Your task to perform on an android device: turn on data saver in the chrome app Image 0: 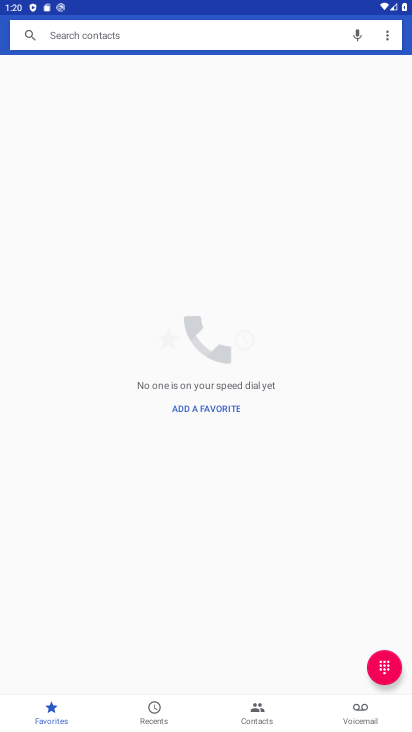
Step 0: press home button
Your task to perform on an android device: turn on data saver in the chrome app Image 1: 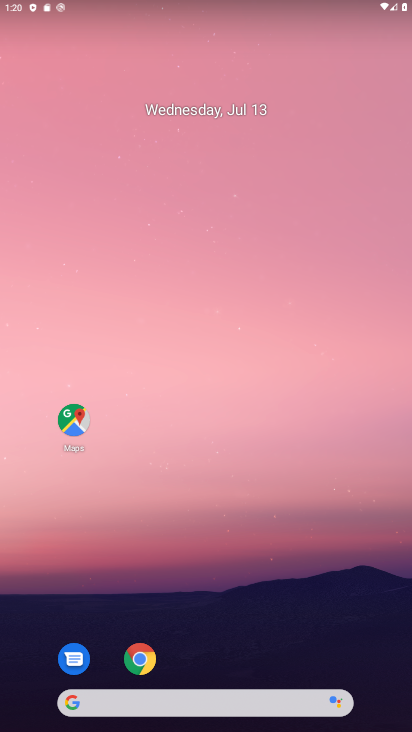
Step 1: click (138, 662)
Your task to perform on an android device: turn on data saver in the chrome app Image 2: 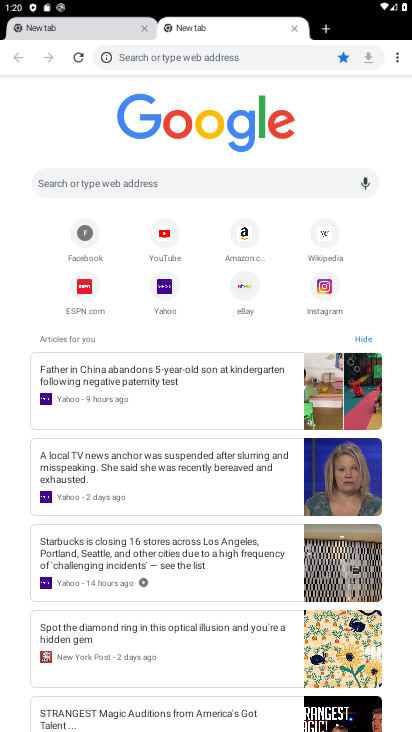
Step 2: click (396, 64)
Your task to perform on an android device: turn on data saver in the chrome app Image 3: 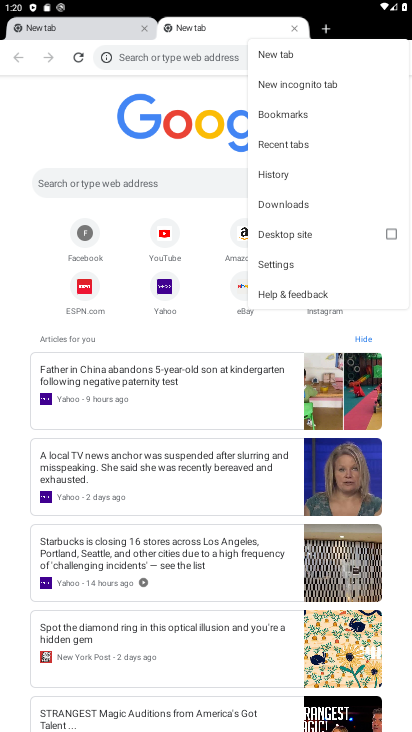
Step 3: click (282, 256)
Your task to perform on an android device: turn on data saver in the chrome app Image 4: 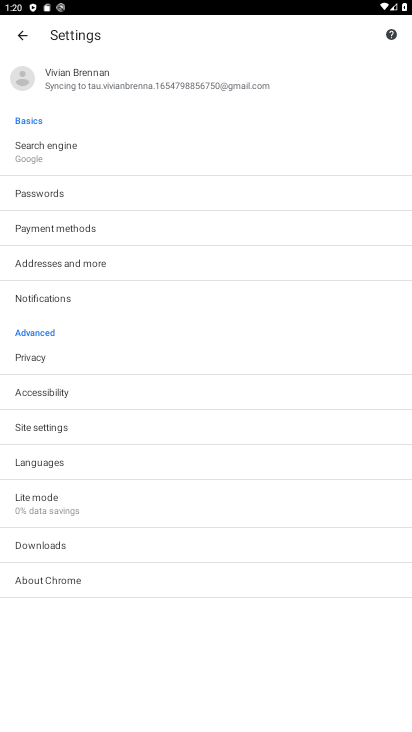
Step 4: click (35, 498)
Your task to perform on an android device: turn on data saver in the chrome app Image 5: 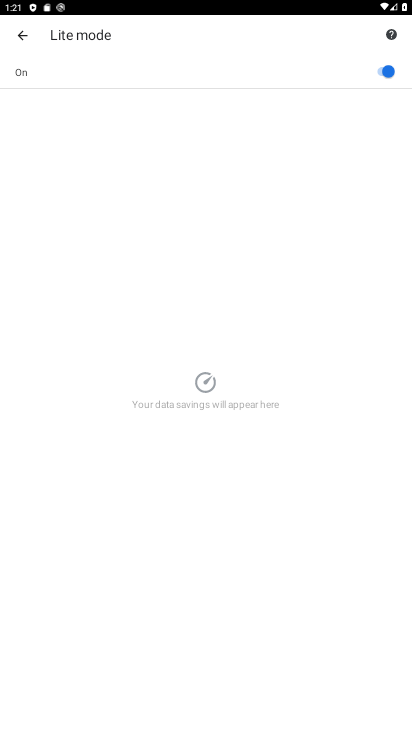
Step 5: task complete